Your task to perform on an android device: check data usage Image 0: 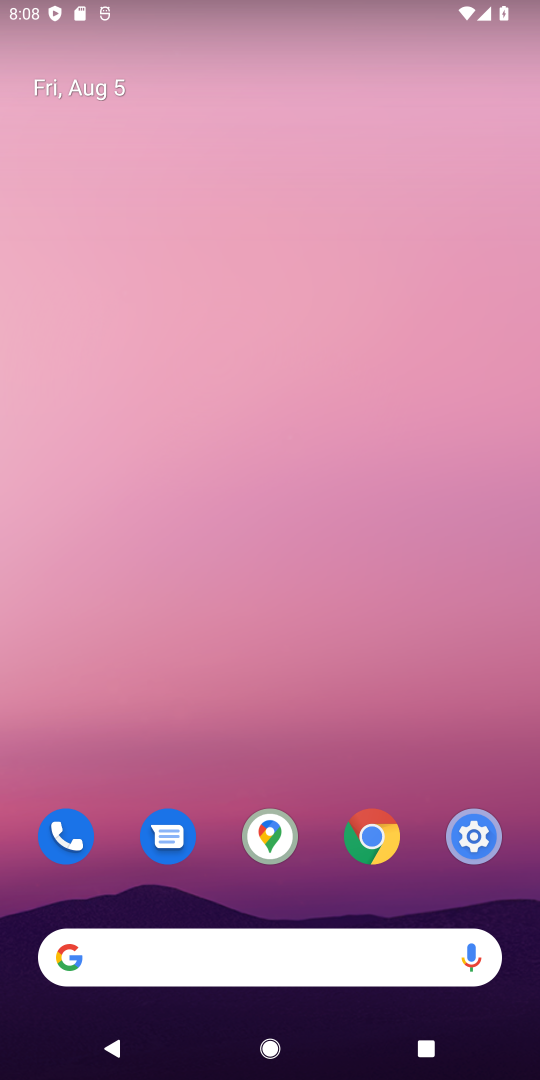
Step 0: drag from (277, 725) to (260, 122)
Your task to perform on an android device: check data usage Image 1: 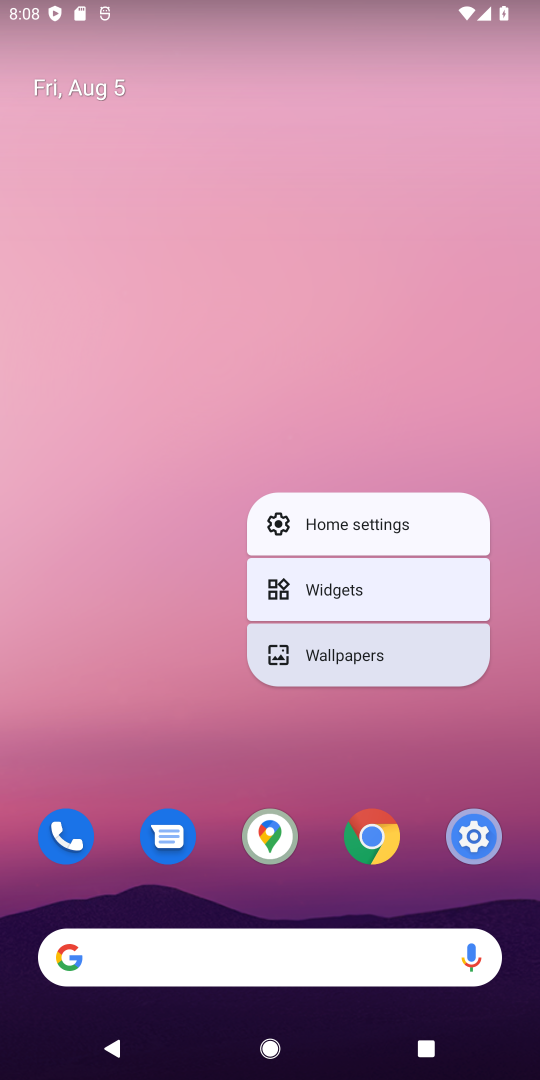
Step 1: click (111, 364)
Your task to perform on an android device: check data usage Image 2: 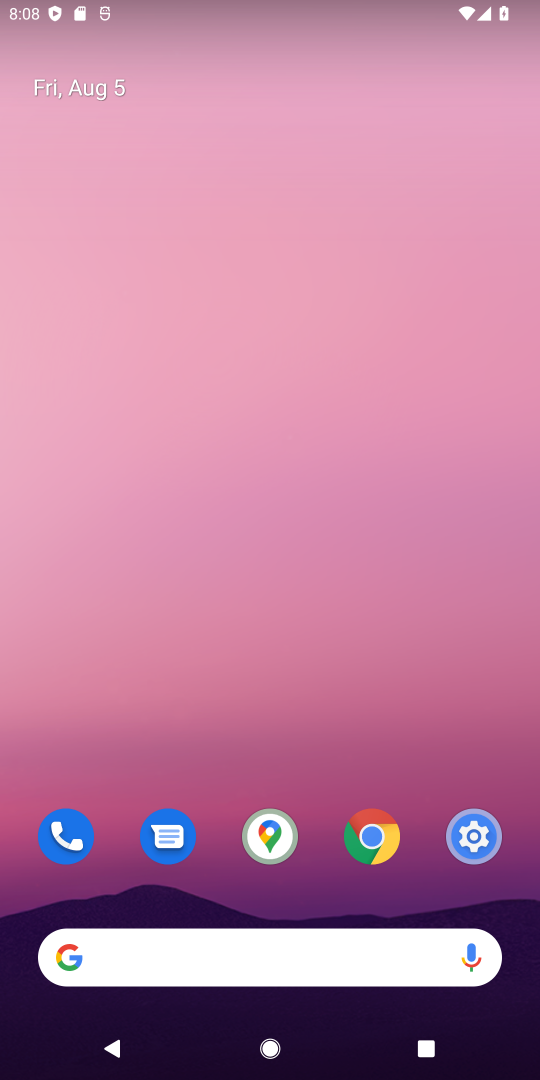
Step 2: drag from (306, 763) to (373, 0)
Your task to perform on an android device: check data usage Image 3: 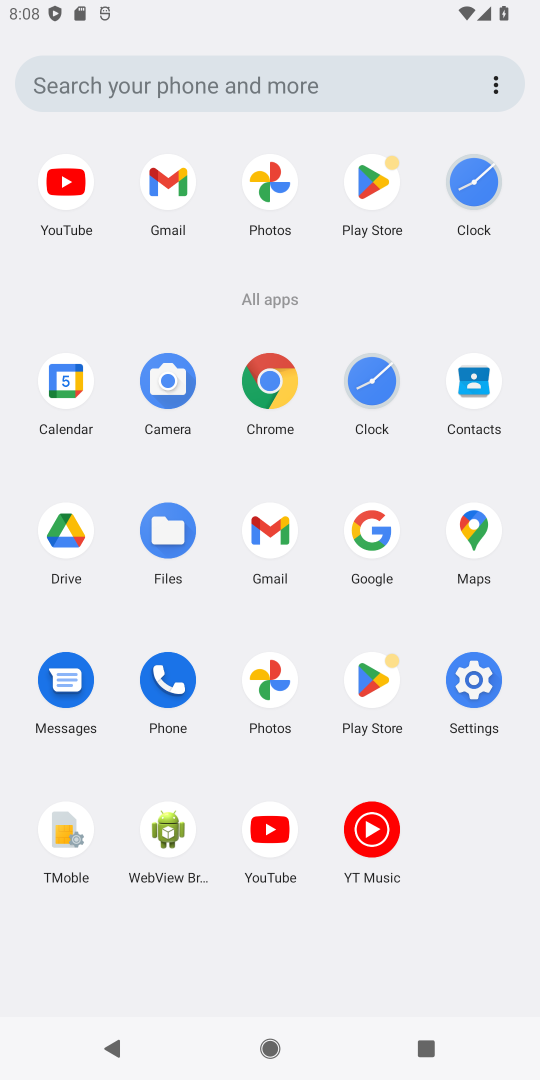
Step 3: click (475, 680)
Your task to perform on an android device: check data usage Image 4: 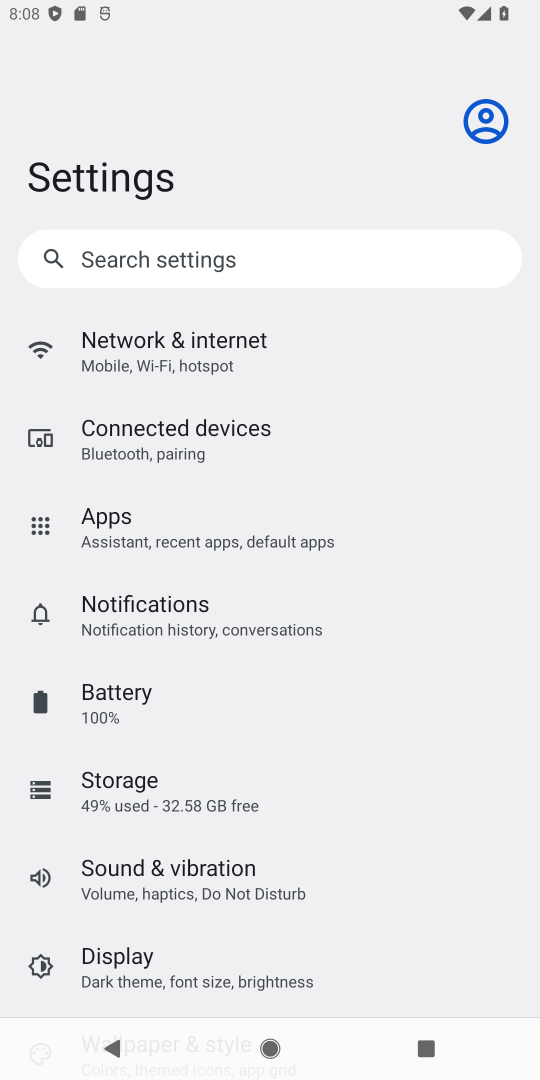
Step 4: click (180, 331)
Your task to perform on an android device: check data usage Image 5: 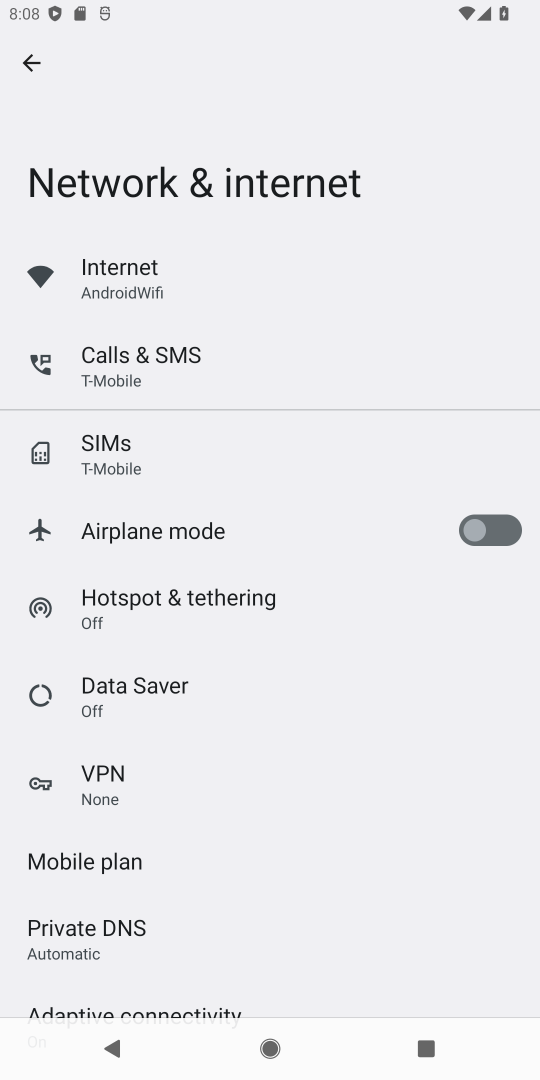
Step 5: click (92, 863)
Your task to perform on an android device: check data usage Image 6: 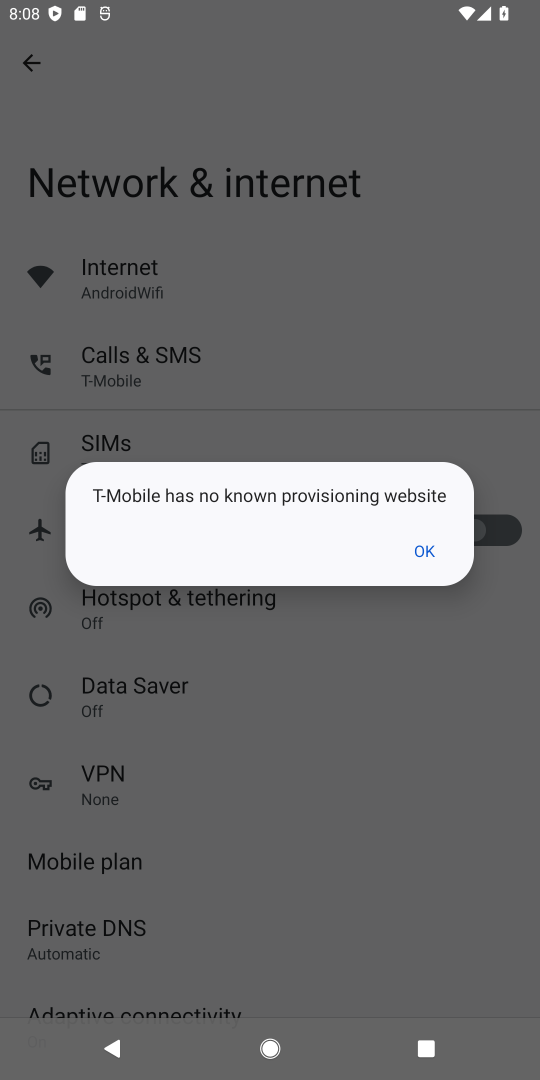
Step 6: click (425, 553)
Your task to perform on an android device: check data usage Image 7: 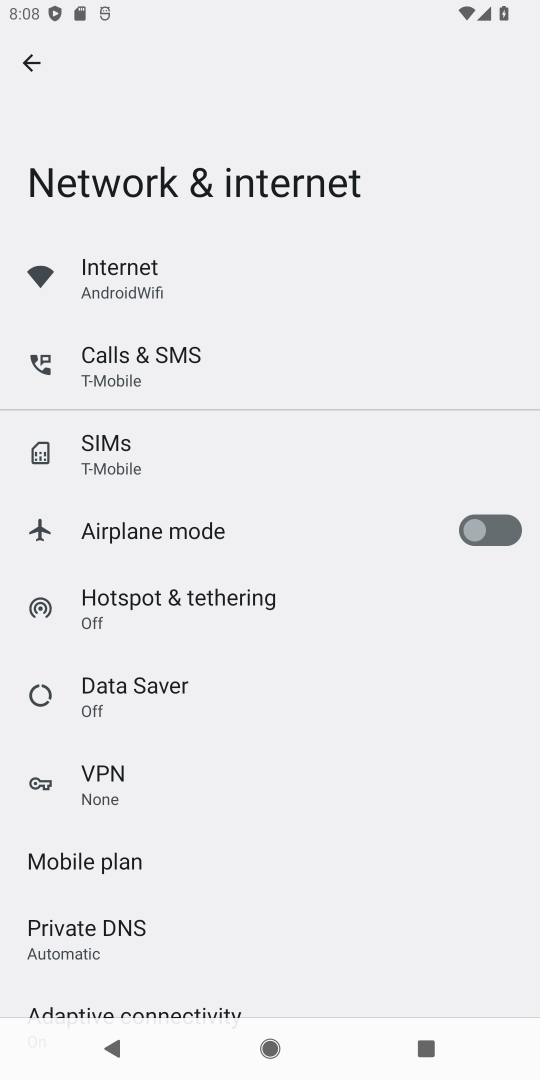
Step 7: click (425, 553)
Your task to perform on an android device: check data usage Image 8: 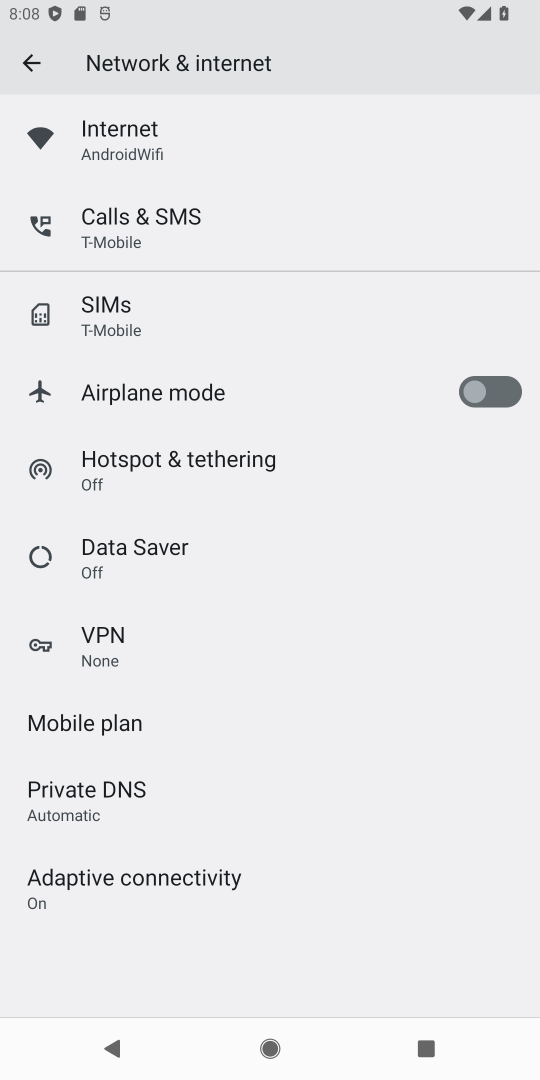
Step 8: click (122, 125)
Your task to perform on an android device: check data usage Image 9: 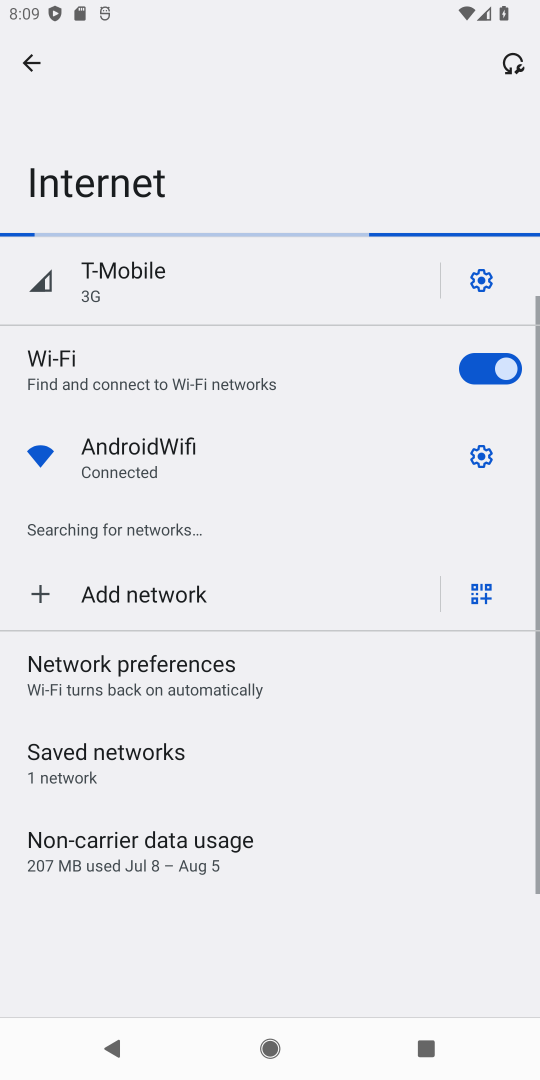
Step 9: click (107, 269)
Your task to perform on an android device: check data usage Image 10: 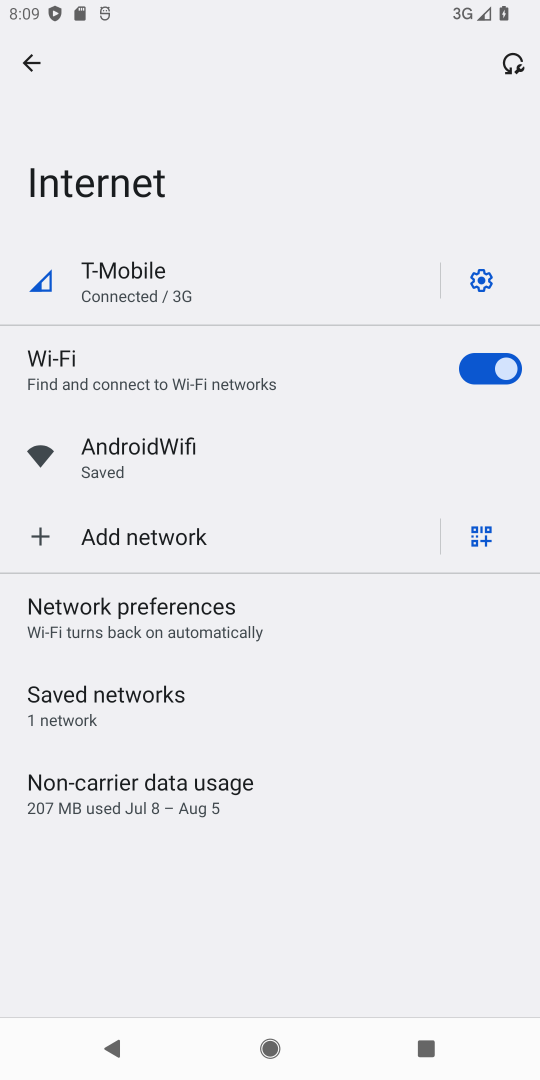
Step 10: click (162, 596)
Your task to perform on an android device: check data usage Image 11: 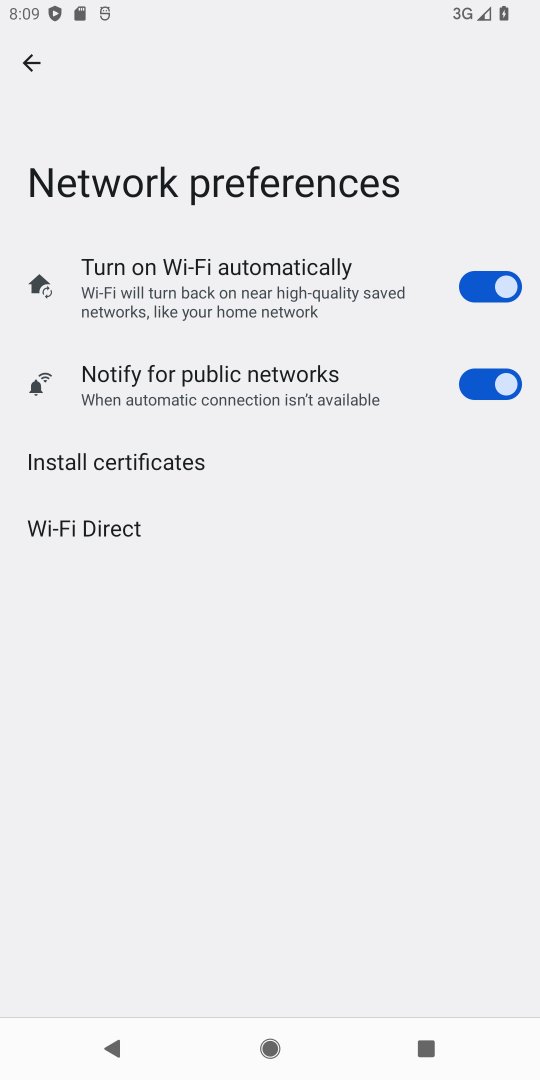
Step 11: click (27, 54)
Your task to perform on an android device: check data usage Image 12: 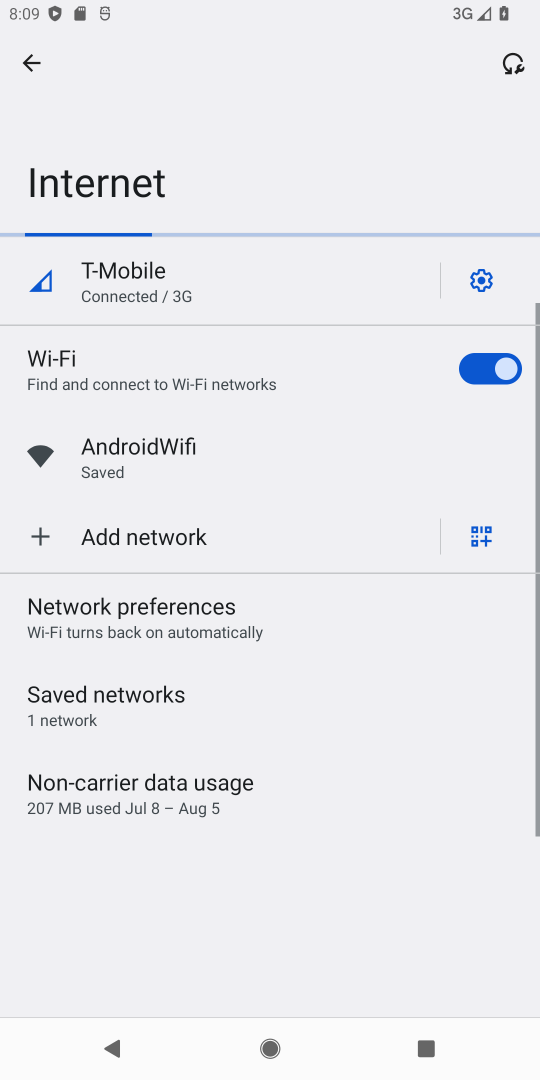
Step 12: click (29, 63)
Your task to perform on an android device: check data usage Image 13: 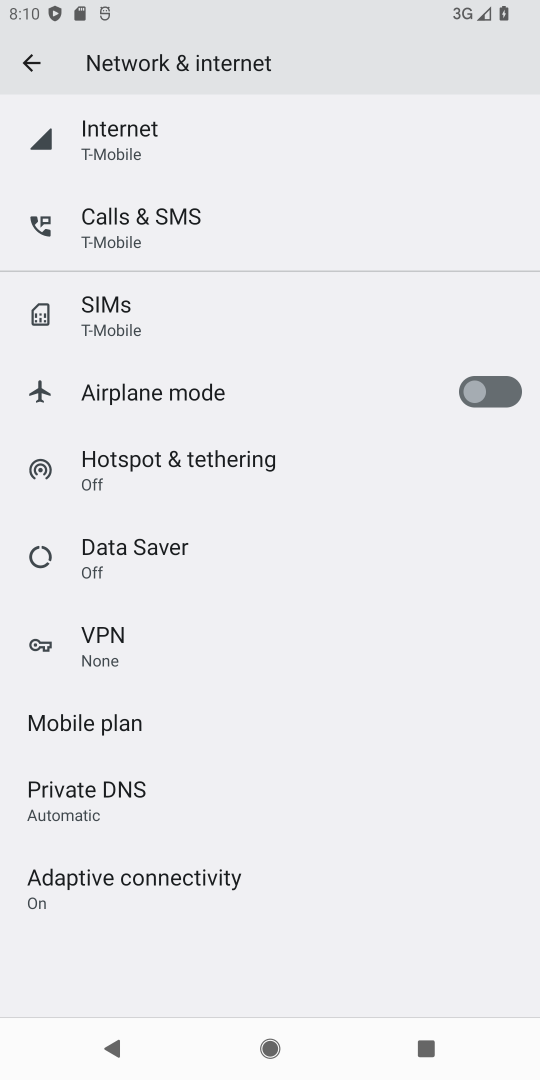
Step 13: click (141, 216)
Your task to perform on an android device: check data usage Image 14: 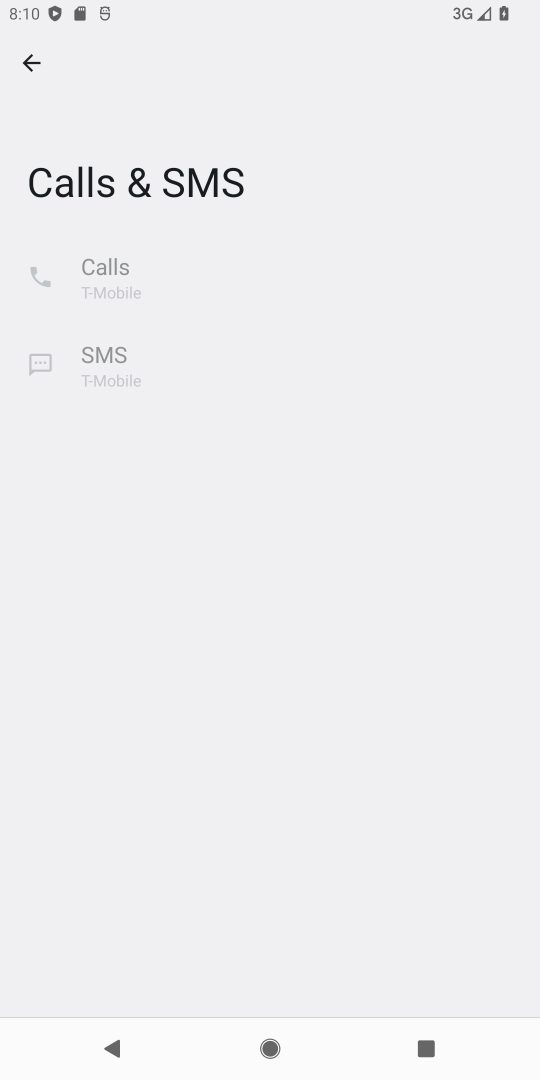
Step 14: click (25, 64)
Your task to perform on an android device: check data usage Image 15: 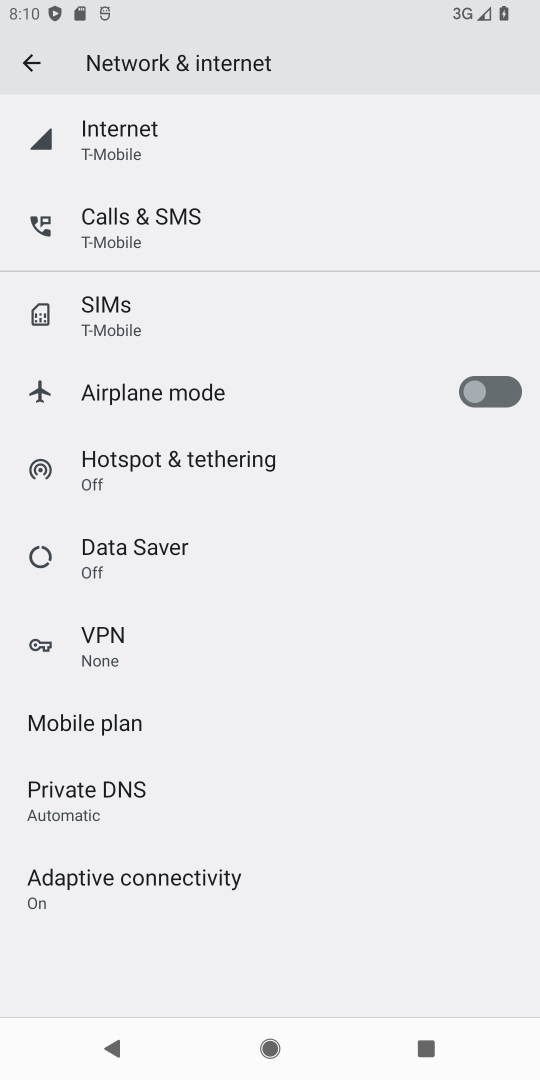
Step 15: click (121, 309)
Your task to perform on an android device: check data usage Image 16: 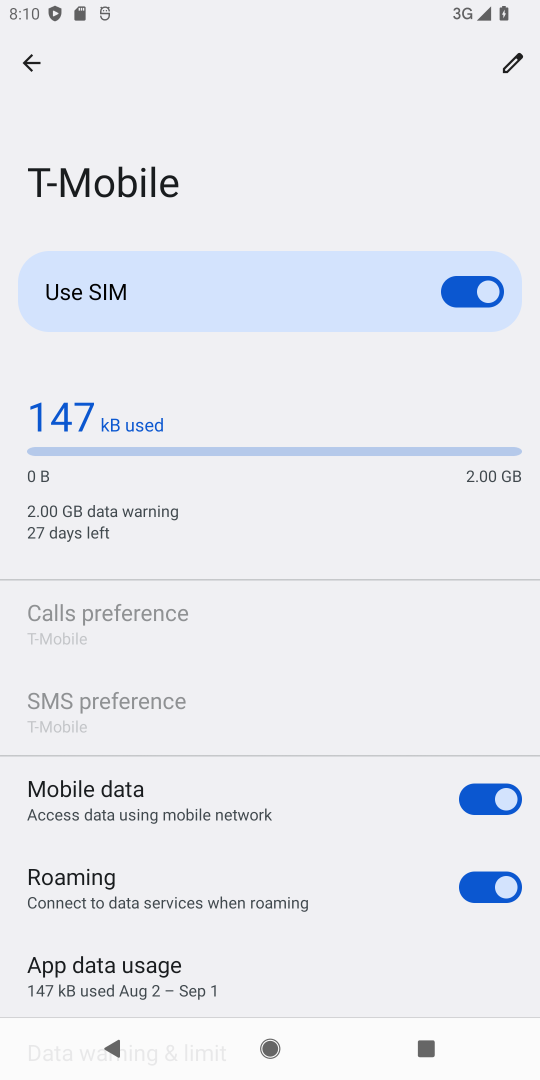
Step 16: task complete